Your task to perform on an android device: turn off smart reply in the gmail app Image 0: 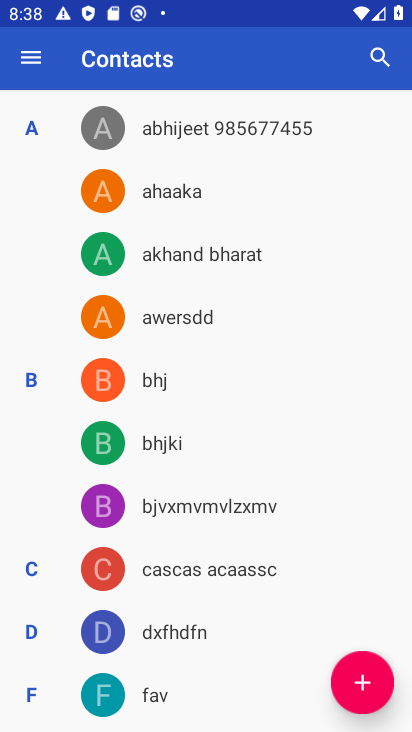
Step 0: press home button
Your task to perform on an android device: turn off smart reply in the gmail app Image 1: 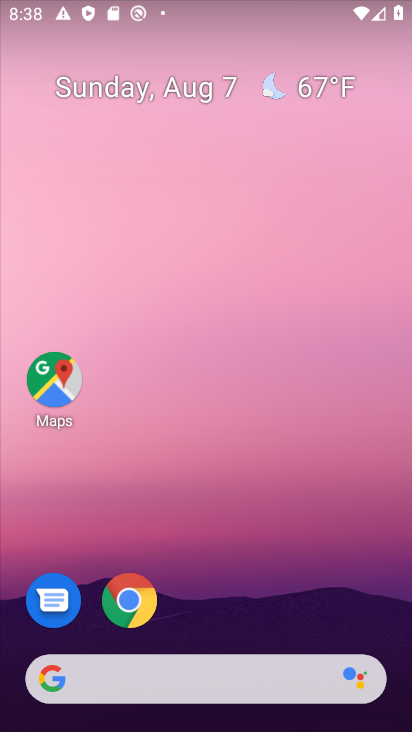
Step 1: drag from (231, 140) to (284, 13)
Your task to perform on an android device: turn off smart reply in the gmail app Image 2: 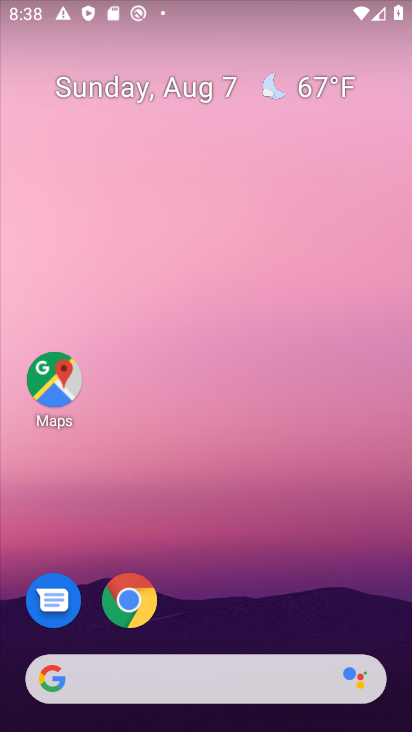
Step 2: drag from (198, 586) to (196, 158)
Your task to perform on an android device: turn off smart reply in the gmail app Image 3: 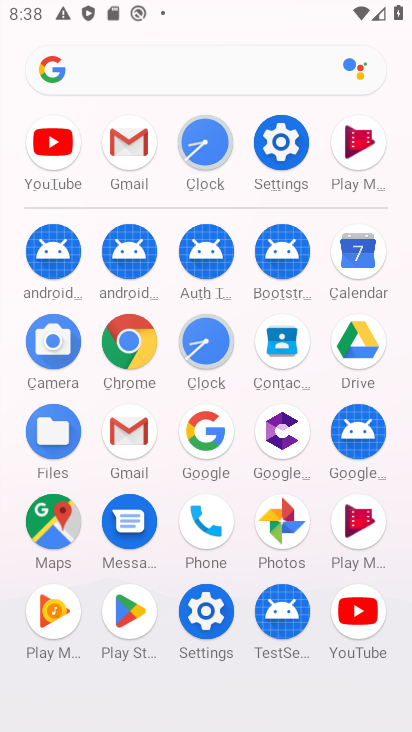
Step 3: click (138, 427)
Your task to perform on an android device: turn off smart reply in the gmail app Image 4: 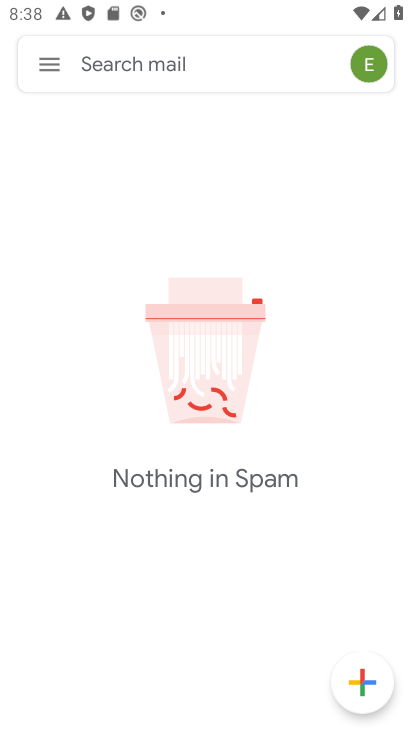
Step 4: click (47, 60)
Your task to perform on an android device: turn off smart reply in the gmail app Image 5: 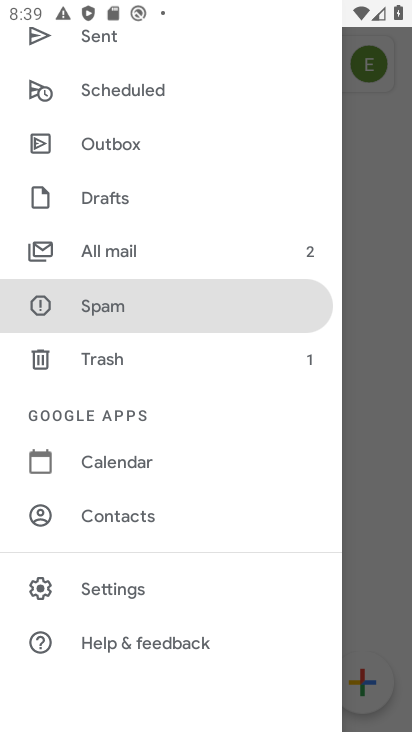
Step 5: click (134, 586)
Your task to perform on an android device: turn off smart reply in the gmail app Image 6: 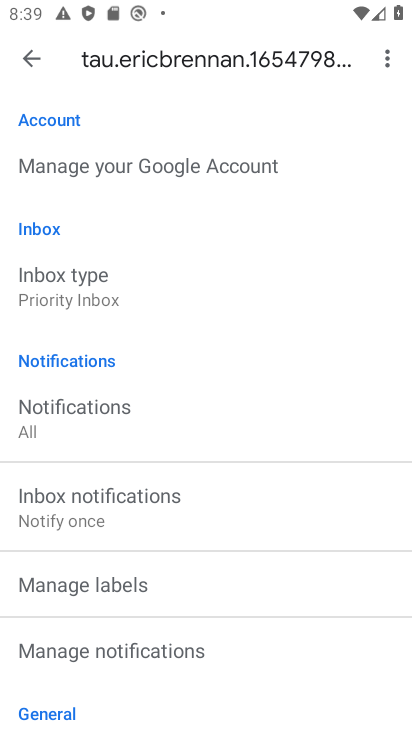
Step 6: drag from (134, 586) to (177, 278)
Your task to perform on an android device: turn off smart reply in the gmail app Image 7: 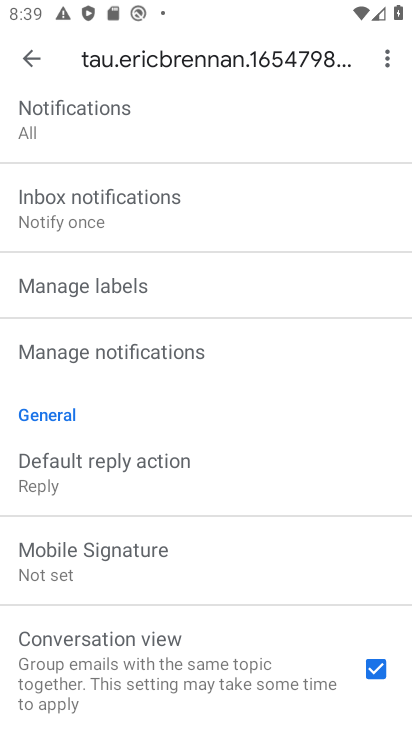
Step 7: drag from (207, 595) to (259, 224)
Your task to perform on an android device: turn off smart reply in the gmail app Image 8: 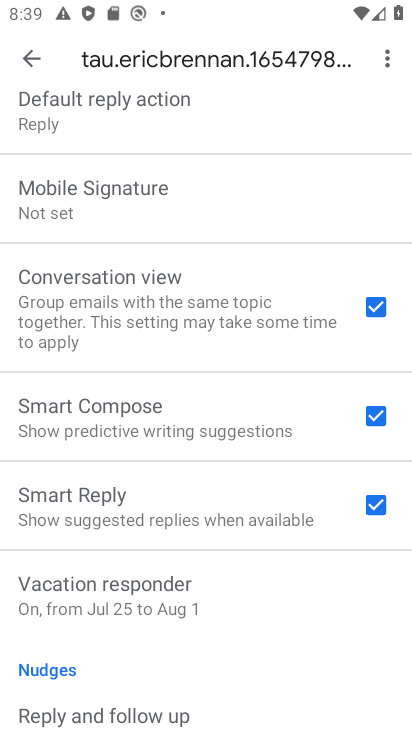
Step 8: click (377, 507)
Your task to perform on an android device: turn off smart reply in the gmail app Image 9: 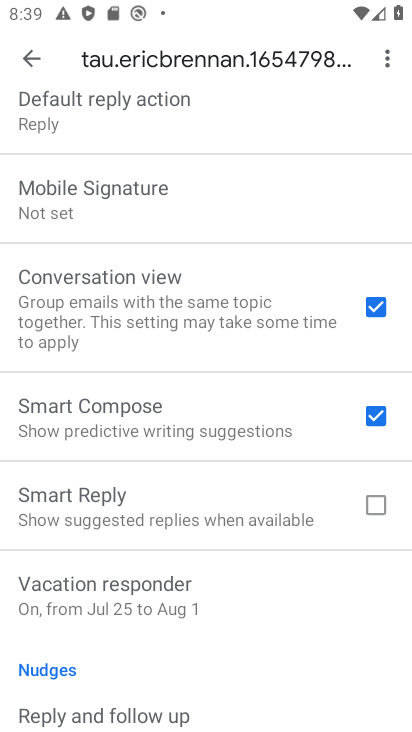
Step 9: task complete